Your task to perform on an android device: change the clock display to digital Image 0: 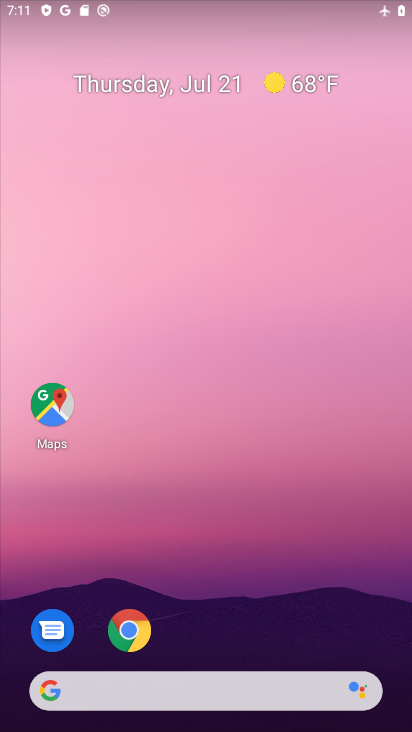
Step 0: drag from (195, 635) to (151, 220)
Your task to perform on an android device: change the clock display to digital Image 1: 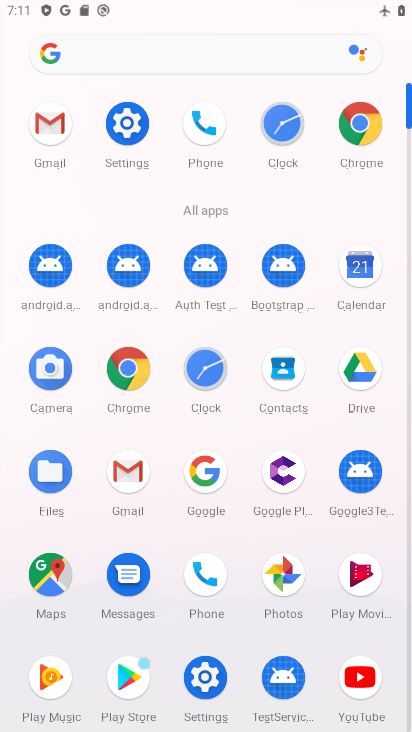
Step 1: click (282, 124)
Your task to perform on an android device: change the clock display to digital Image 2: 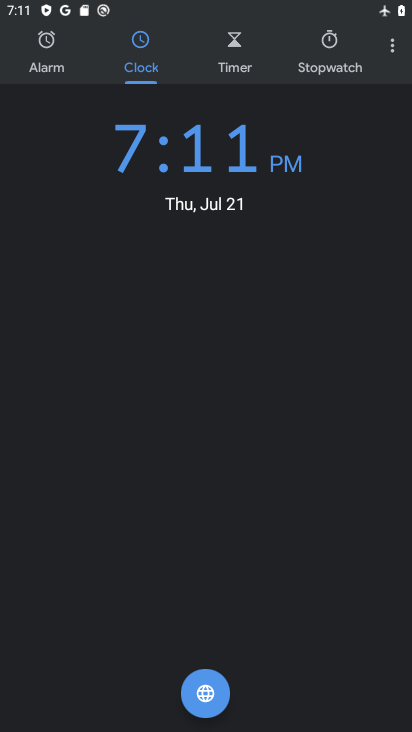
Step 2: click (393, 41)
Your task to perform on an android device: change the clock display to digital Image 3: 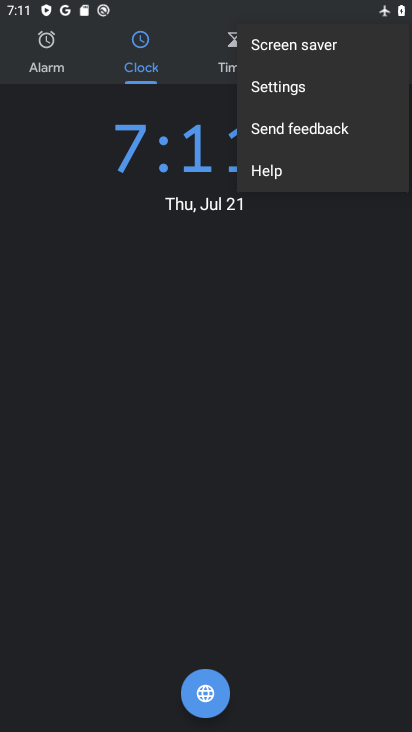
Step 3: click (272, 91)
Your task to perform on an android device: change the clock display to digital Image 4: 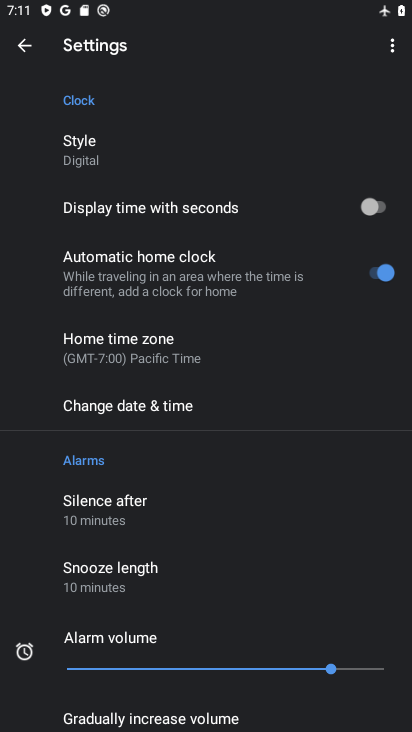
Step 4: task complete